Your task to perform on an android device: change the clock style Image 0: 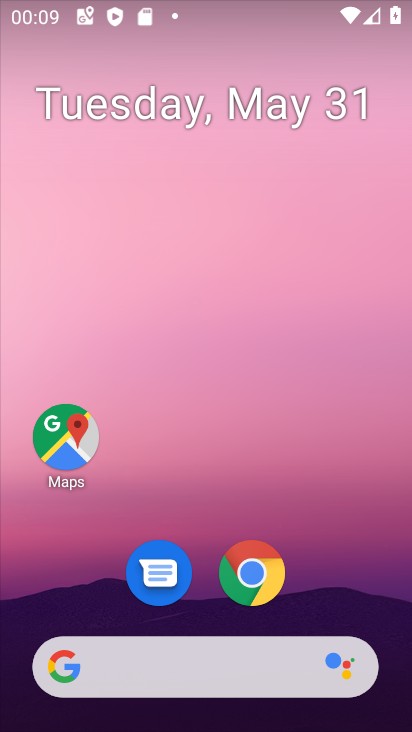
Step 0: drag from (186, 710) to (241, 78)
Your task to perform on an android device: change the clock style Image 1: 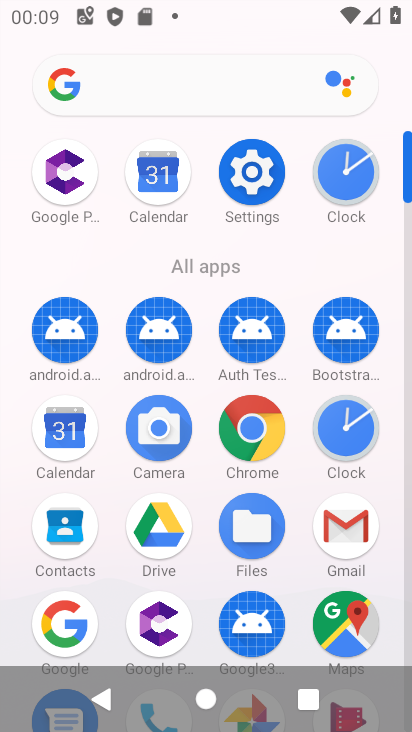
Step 1: click (341, 443)
Your task to perform on an android device: change the clock style Image 2: 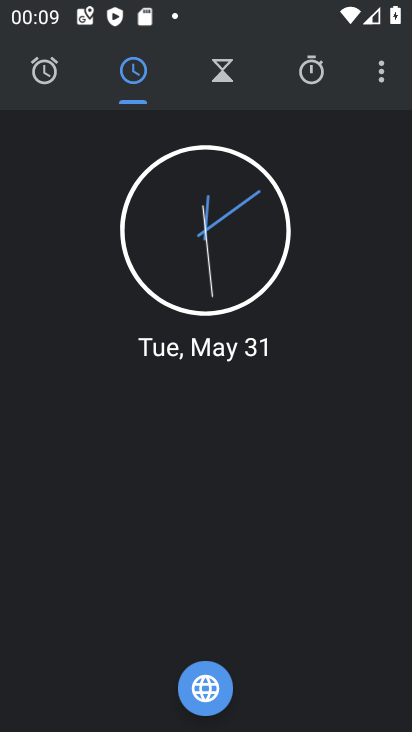
Step 2: click (375, 78)
Your task to perform on an android device: change the clock style Image 3: 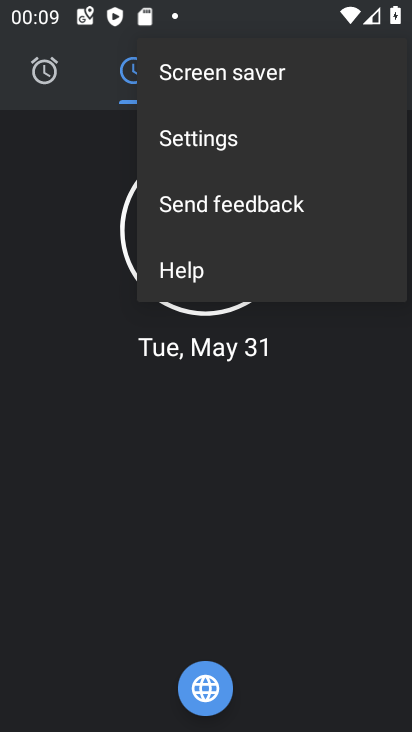
Step 3: click (243, 163)
Your task to perform on an android device: change the clock style Image 4: 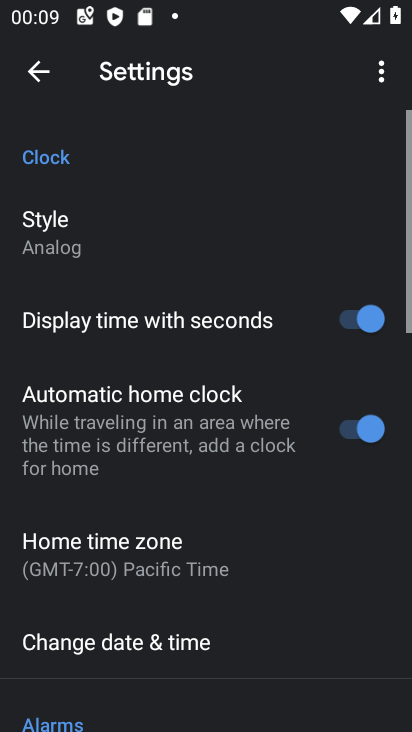
Step 4: click (166, 211)
Your task to perform on an android device: change the clock style Image 5: 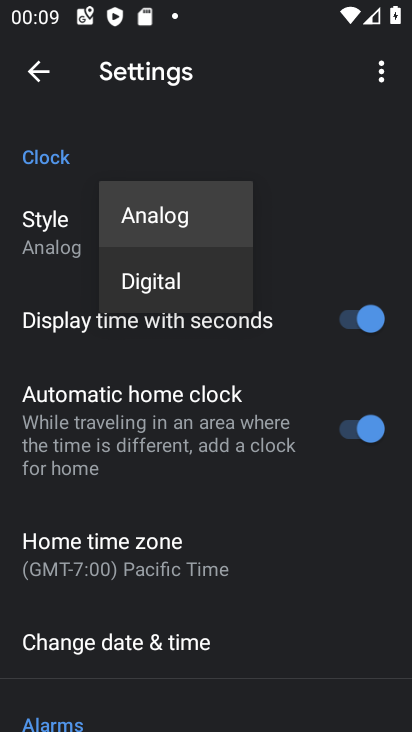
Step 5: click (183, 290)
Your task to perform on an android device: change the clock style Image 6: 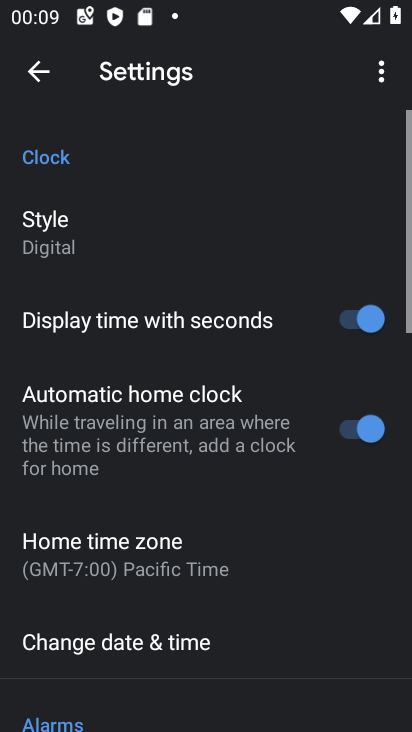
Step 6: task complete